Your task to perform on an android device: Search for "energizer triple a" on amazon.com, select the first entry, add it to the cart, then select checkout. Image 0: 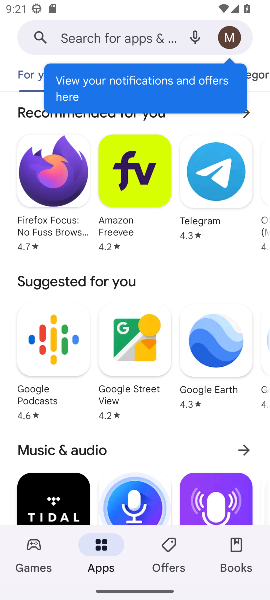
Step 0: press home button
Your task to perform on an android device: Search for "energizer triple a" on amazon.com, select the first entry, add it to the cart, then select checkout. Image 1: 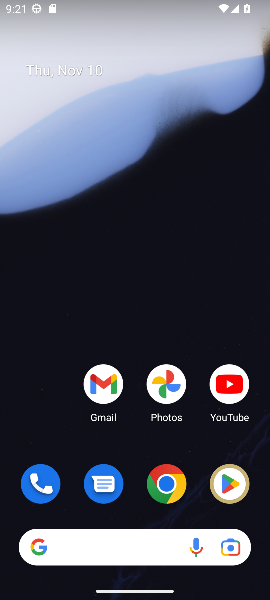
Step 1: click (171, 491)
Your task to perform on an android device: Search for "energizer triple a" on amazon.com, select the first entry, add it to the cart, then select checkout. Image 2: 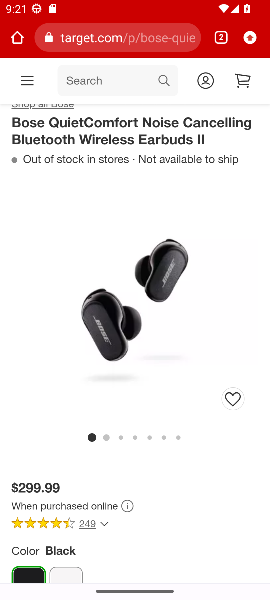
Step 2: click (108, 34)
Your task to perform on an android device: Search for "energizer triple a" on amazon.com, select the first entry, add it to the cart, then select checkout. Image 3: 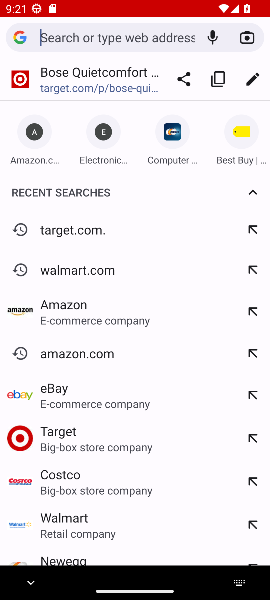
Step 3: click (41, 149)
Your task to perform on an android device: Search for "energizer triple a" on amazon.com, select the first entry, add it to the cart, then select checkout. Image 4: 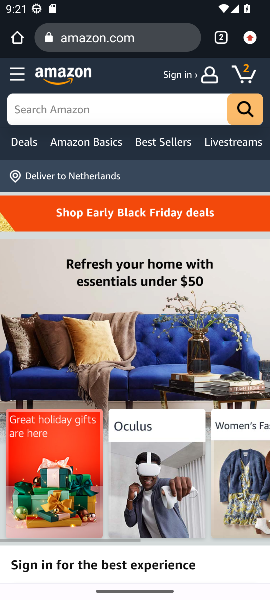
Step 4: click (85, 122)
Your task to perform on an android device: Search for "energizer triple a" on amazon.com, select the first entry, add it to the cart, then select checkout. Image 5: 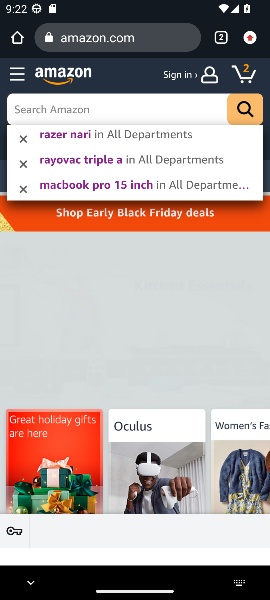
Step 5: type "energizer triple a"
Your task to perform on an android device: Search for "energizer triple a" on amazon.com, select the first entry, add it to the cart, then select checkout. Image 6: 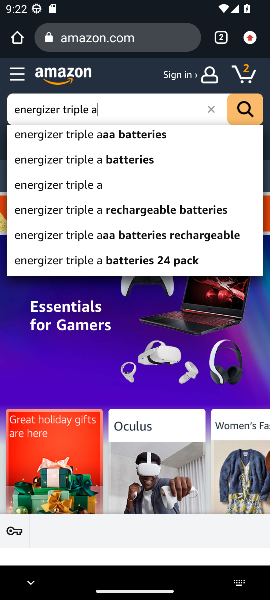
Step 6: click (80, 187)
Your task to perform on an android device: Search for "energizer triple a" on amazon.com, select the first entry, add it to the cart, then select checkout. Image 7: 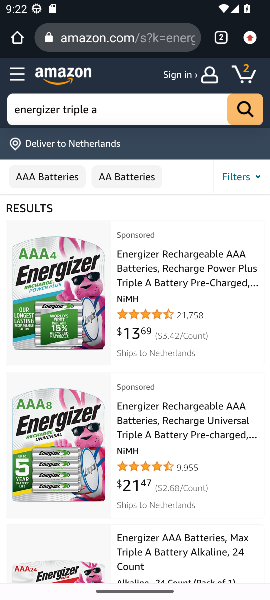
Step 7: click (67, 304)
Your task to perform on an android device: Search for "energizer triple a" on amazon.com, select the first entry, add it to the cart, then select checkout. Image 8: 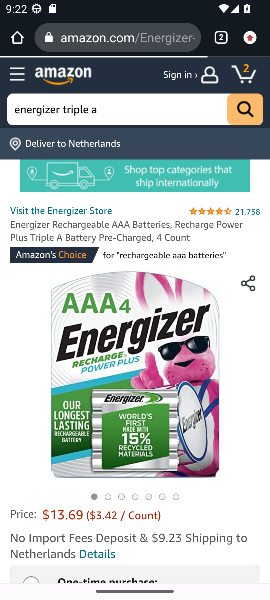
Step 8: drag from (91, 407) to (97, 174)
Your task to perform on an android device: Search for "energizer triple a" on amazon.com, select the first entry, add it to the cart, then select checkout. Image 9: 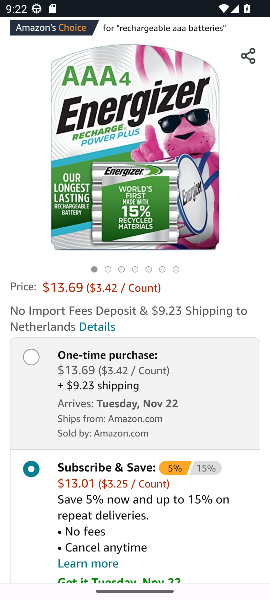
Step 9: click (24, 354)
Your task to perform on an android device: Search for "energizer triple a" on amazon.com, select the first entry, add it to the cart, then select checkout. Image 10: 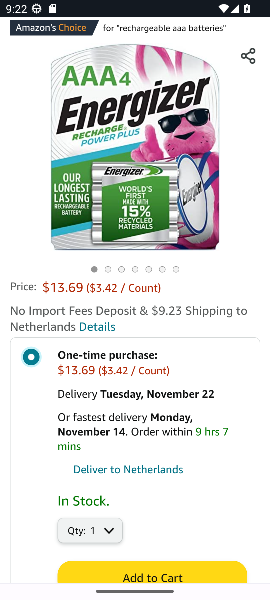
Step 10: drag from (131, 464) to (136, 278)
Your task to perform on an android device: Search for "energizer triple a" on amazon.com, select the first entry, add it to the cart, then select checkout. Image 11: 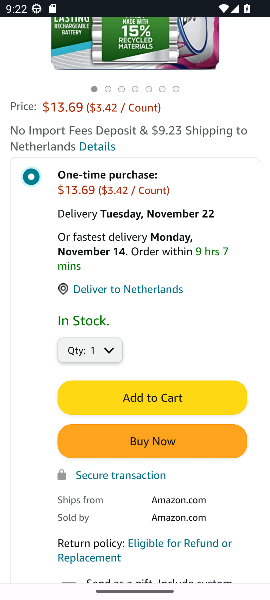
Step 11: click (147, 392)
Your task to perform on an android device: Search for "energizer triple a" on amazon.com, select the first entry, add it to the cart, then select checkout. Image 12: 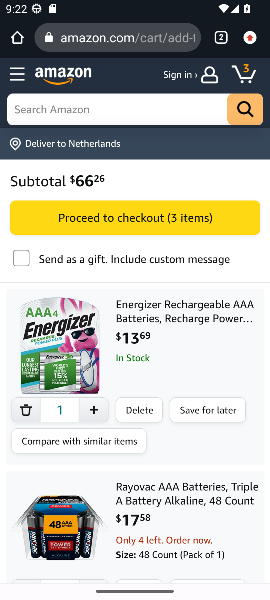
Step 12: click (120, 219)
Your task to perform on an android device: Search for "energizer triple a" on amazon.com, select the first entry, add it to the cart, then select checkout. Image 13: 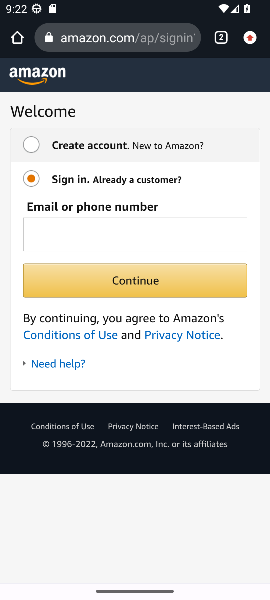
Step 13: task complete